Your task to perform on an android device: move a message to another label in the gmail app Image 0: 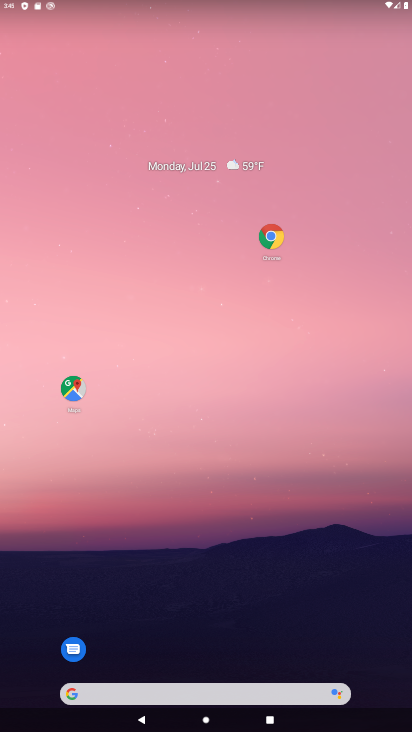
Step 0: drag from (188, 664) to (261, 197)
Your task to perform on an android device: move a message to another label in the gmail app Image 1: 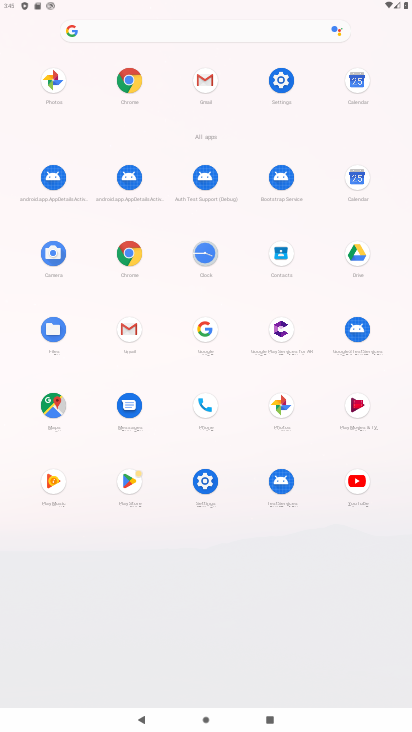
Step 1: click (127, 342)
Your task to perform on an android device: move a message to another label in the gmail app Image 2: 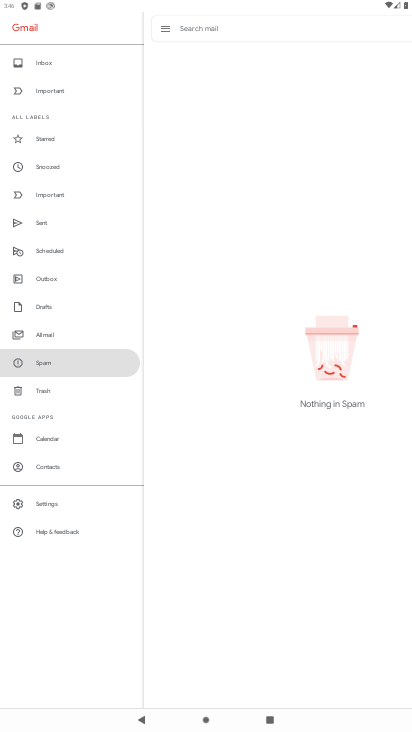
Step 2: click (41, 332)
Your task to perform on an android device: move a message to another label in the gmail app Image 3: 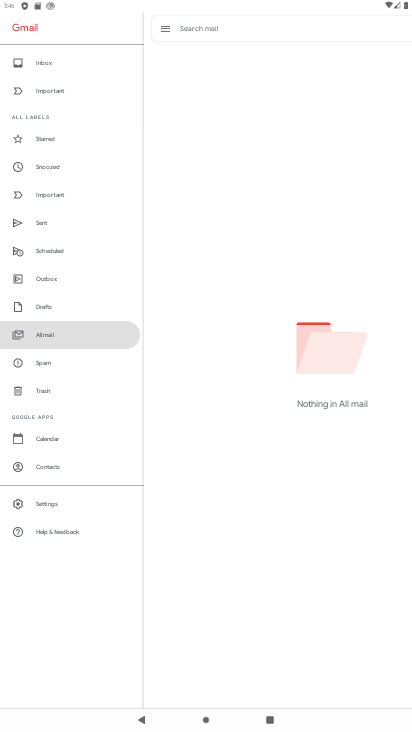
Step 3: task complete